Your task to perform on an android device: Show me the alarms in the clock app Image 0: 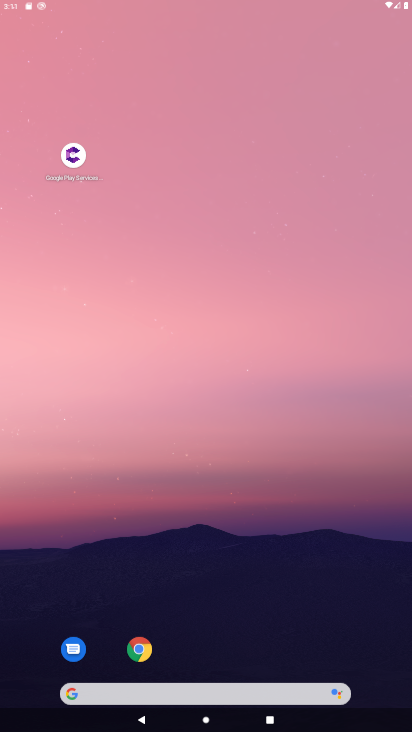
Step 0: click (310, 16)
Your task to perform on an android device: Show me the alarms in the clock app Image 1: 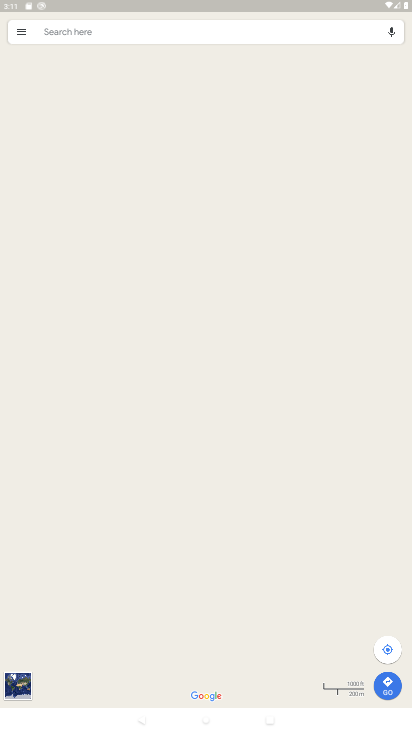
Step 1: press back button
Your task to perform on an android device: Show me the alarms in the clock app Image 2: 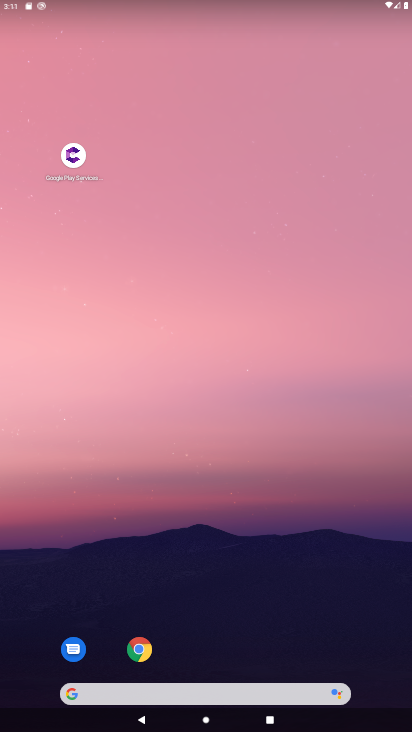
Step 2: drag from (176, 612) to (235, 68)
Your task to perform on an android device: Show me the alarms in the clock app Image 3: 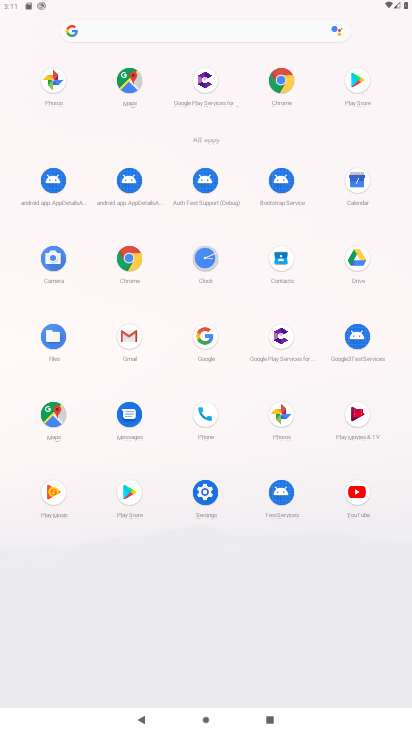
Step 3: click (202, 259)
Your task to perform on an android device: Show me the alarms in the clock app Image 4: 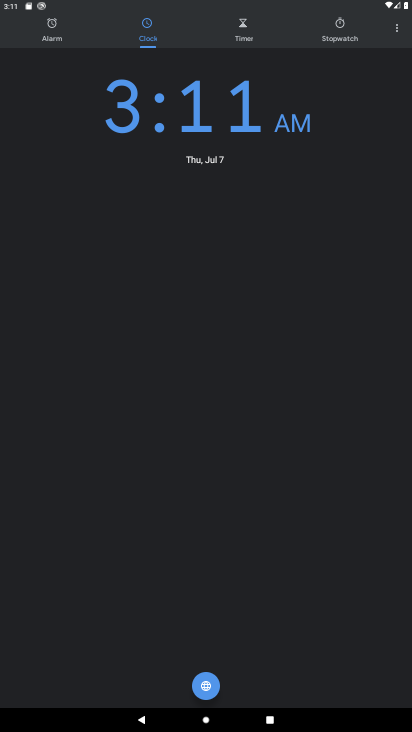
Step 4: click (43, 22)
Your task to perform on an android device: Show me the alarms in the clock app Image 5: 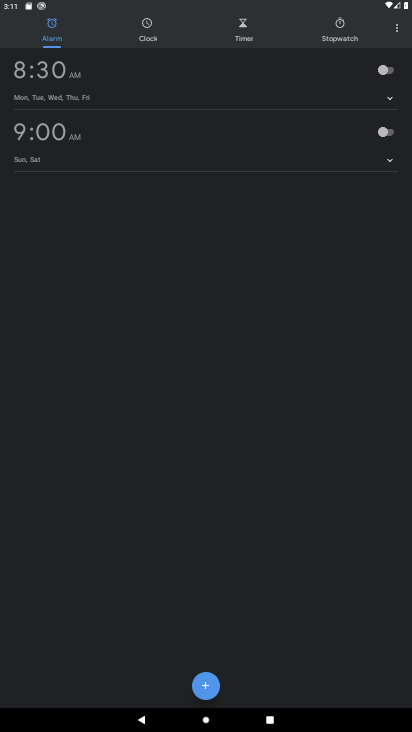
Step 5: task complete